Your task to perform on an android device: Search for Mexican restaurants on Maps Image 0: 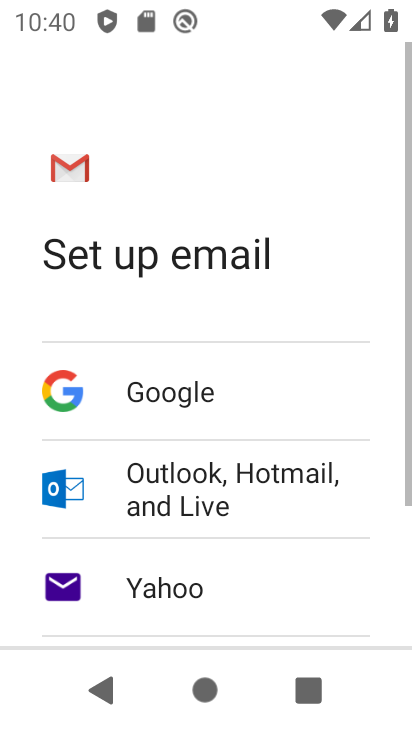
Step 0: press home button
Your task to perform on an android device: Search for Mexican restaurants on Maps Image 1: 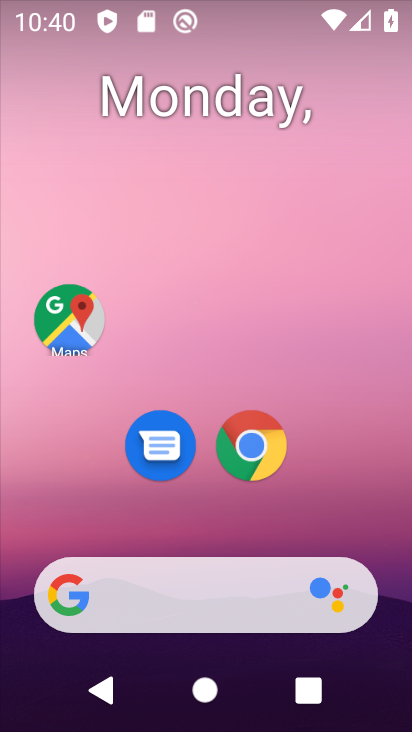
Step 1: click (74, 318)
Your task to perform on an android device: Search for Mexican restaurants on Maps Image 2: 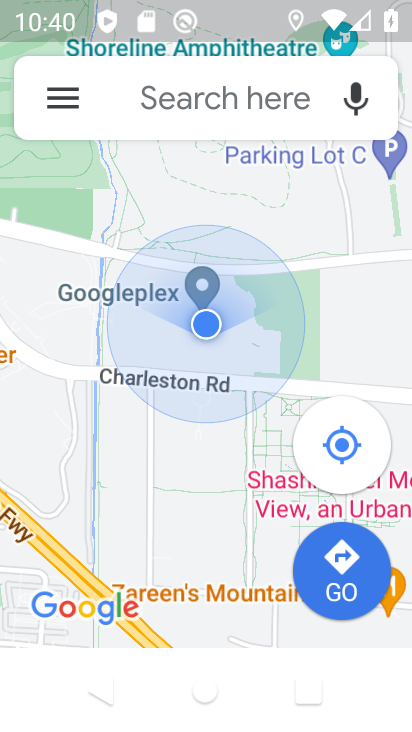
Step 2: click (230, 101)
Your task to perform on an android device: Search for Mexican restaurants on Maps Image 3: 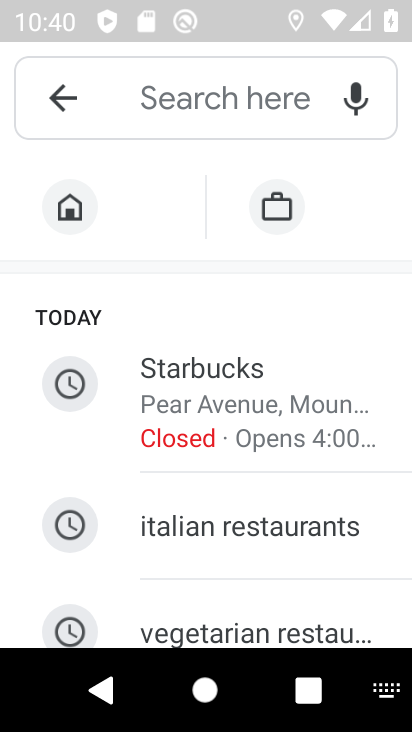
Step 3: type "Mexican restaurants"
Your task to perform on an android device: Search for Mexican restaurants on Maps Image 4: 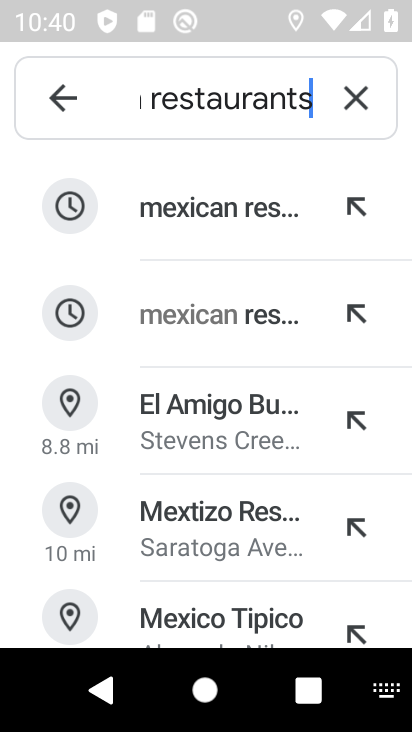
Step 4: click (220, 194)
Your task to perform on an android device: Search for Mexican restaurants on Maps Image 5: 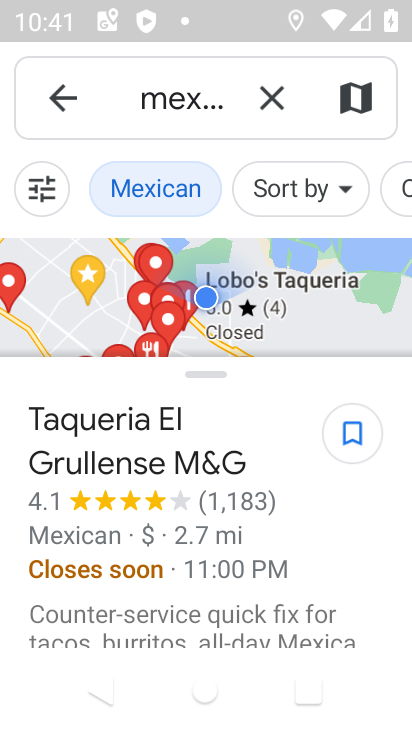
Step 5: task complete